Your task to perform on an android device: change timer sound Image 0: 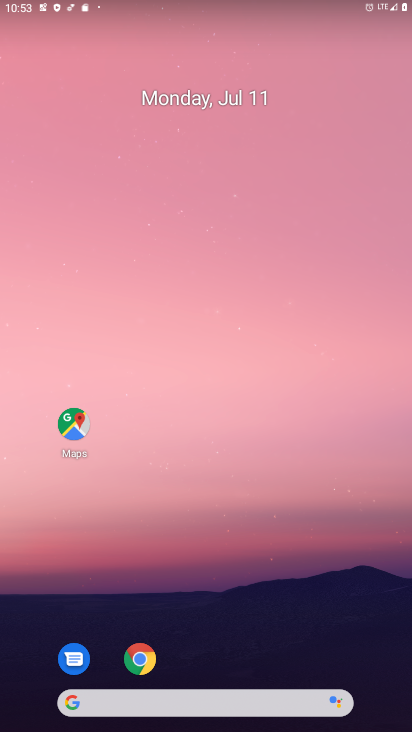
Step 0: drag from (203, 654) to (310, 19)
Your task to perform on an android device: change timer sound Image 1: 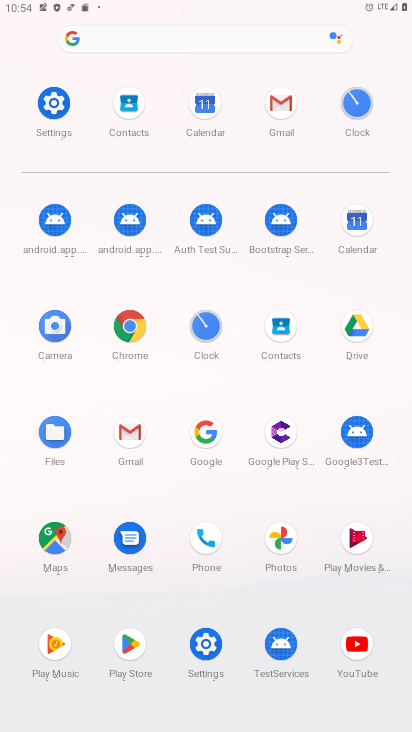
Step 1: click (207, 637)
Your task to perform on an android device: change timer sound Image 2: 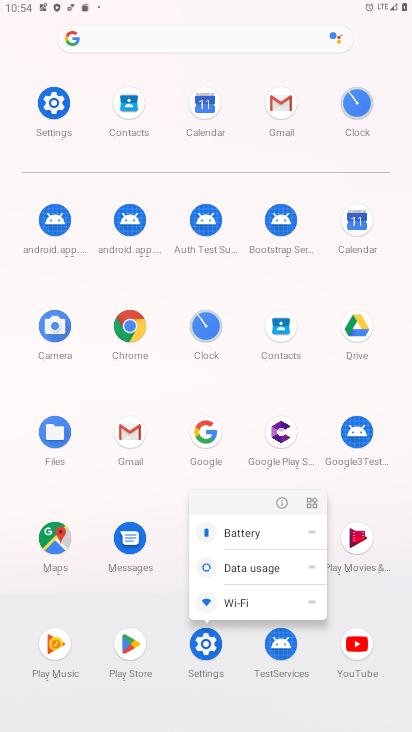
Step 2: click (201, 328)
Your task to perform on an android device: change timer sound Image 3: 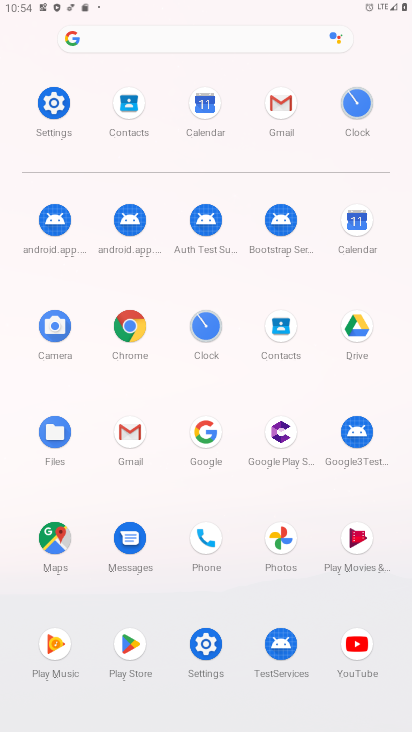
Step 3: click (210, 331)
Your task to perform on an android device: change timer sound Image 4: 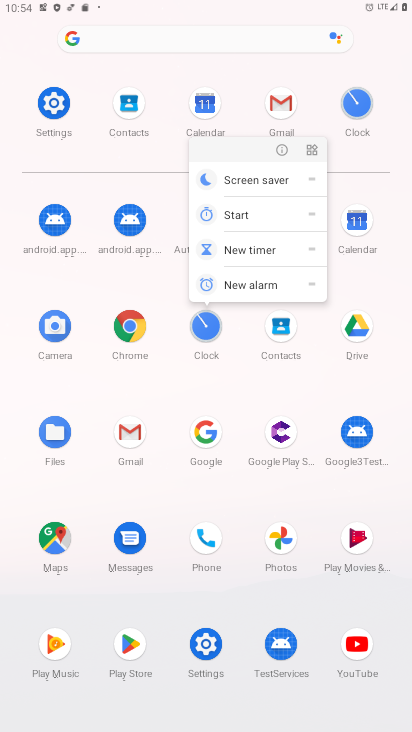
Step 4: click (277, 146)
Your task to perform on an android device: change timer sound Image 5: 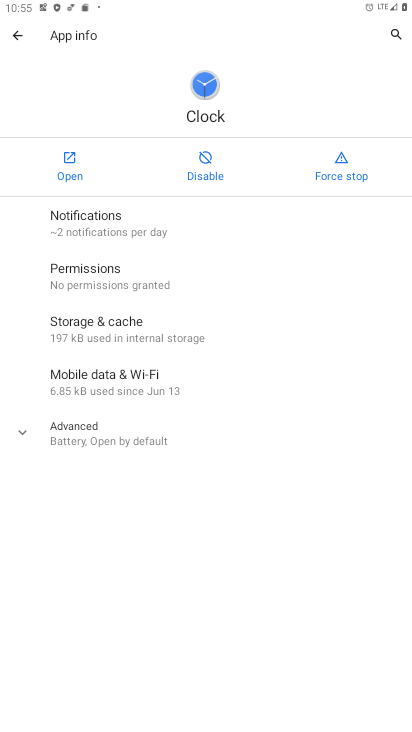
Step 5: click (75, 167)
Your task to perform on an android device: change timer sound Image 6: 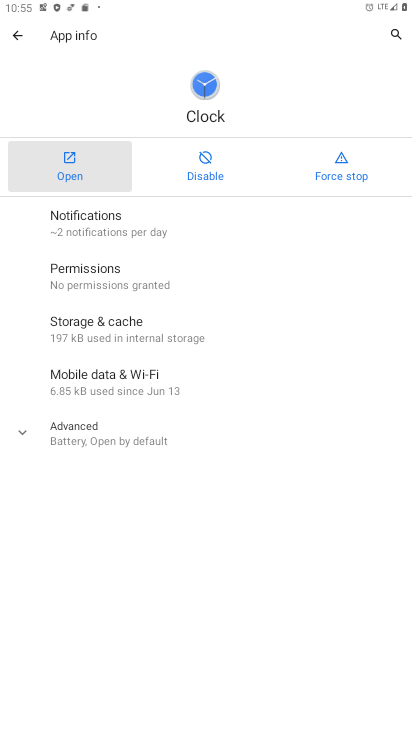
Step 6: click (75, 167)
Your task to perform on an android device: change timer sound Image 7: 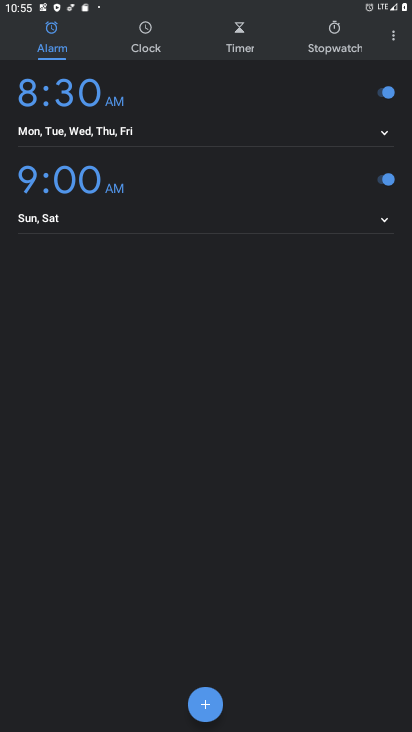
Step 7: click (390, 43)
Your task to perform on an android device: change timer sound Image 8: 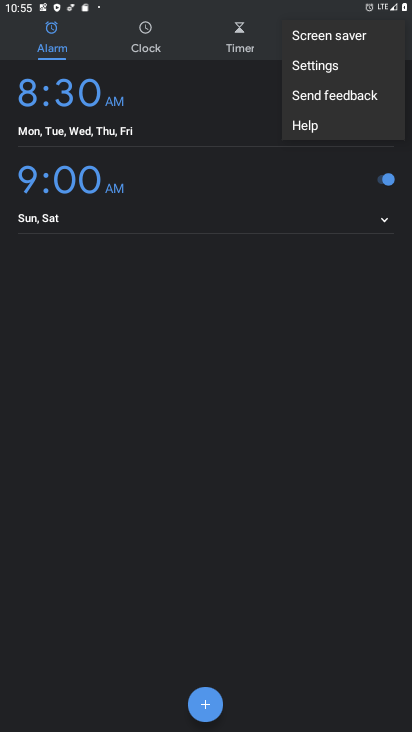
Step 8: click (328, 68)
Your task to perform on an android device: change timer sound Image 9: 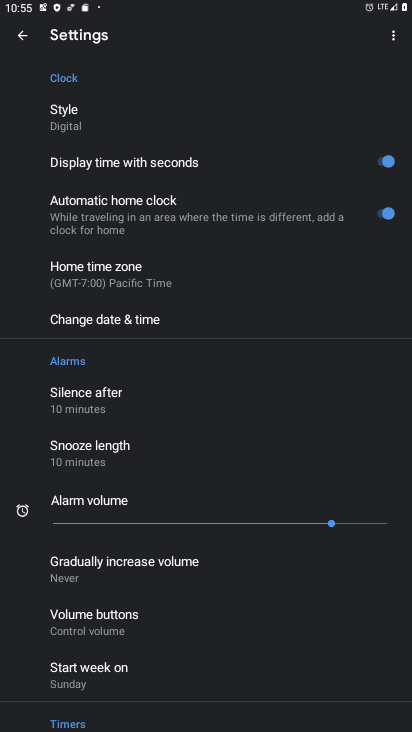
Step 9: drag from (197, 543) to (231, 218)
Your task to perform on an android device: change timer sound Image 10: 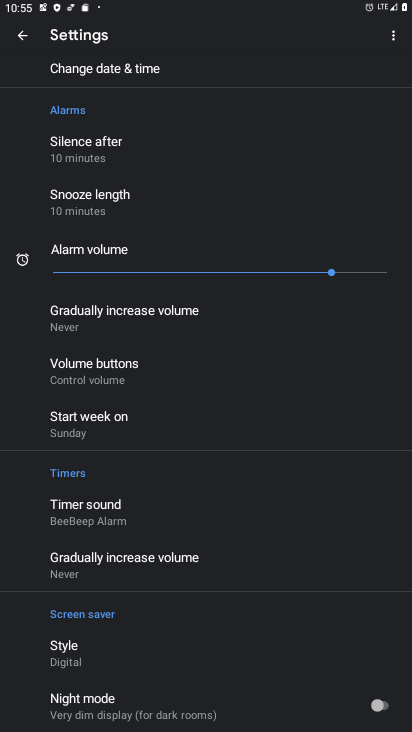
Step 10: click (112, 525)
Your task to perform on an android device: change timer sound Image 11: 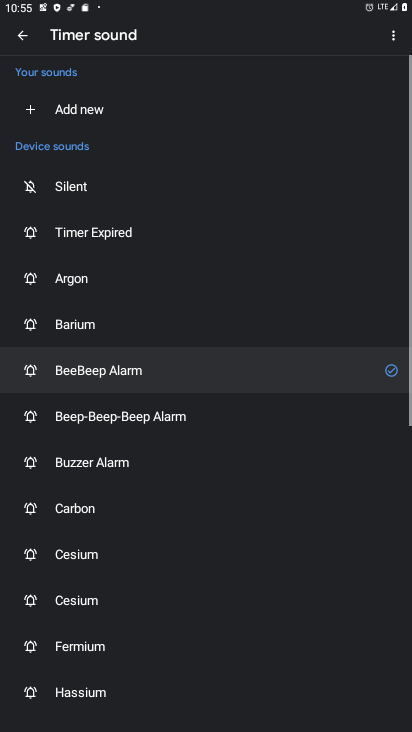
Step 11: click (155, 558)
Your task to perform on an android device: change timer sound Image 12: 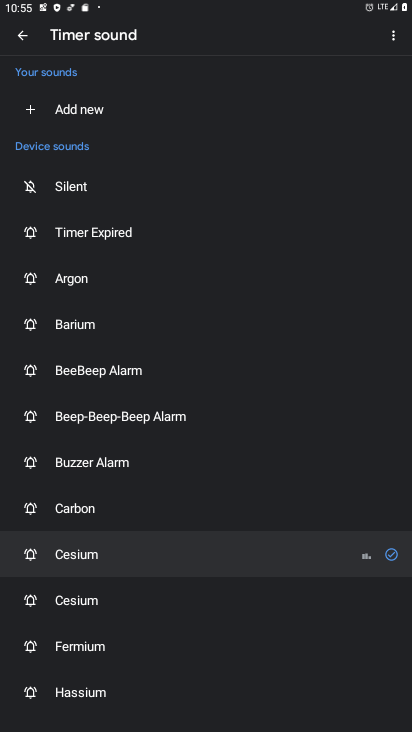
Step 12: click (393, 549)
Your task to perform on an android device: change timer sound Image 13: 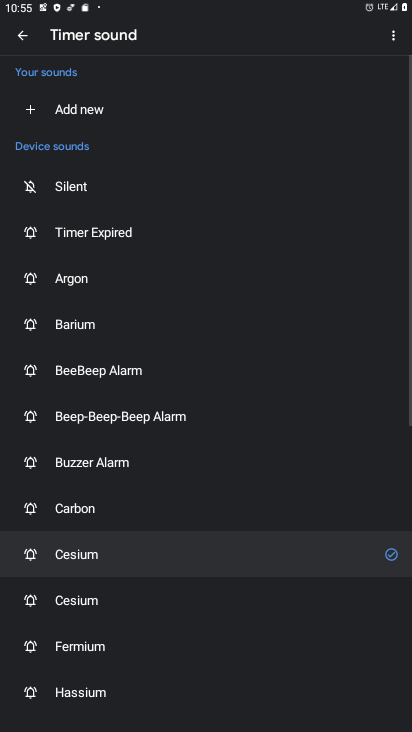
Step 13: task complete